Your task to perform on an android device: Go to internet settings Image 0: 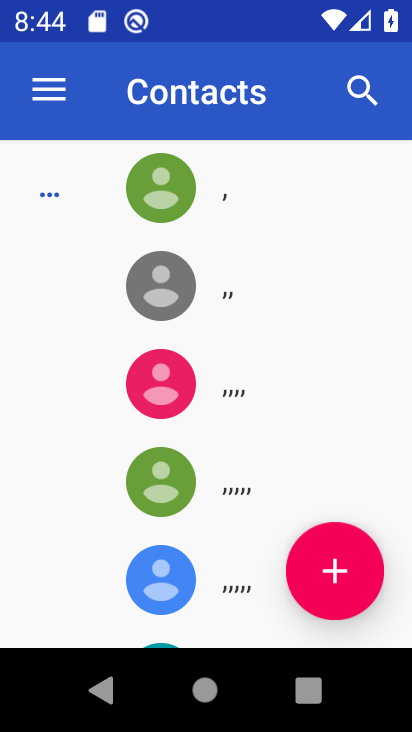
Step 0: press home button
Your task to perform on an android device: Go to internet settings Image 1: 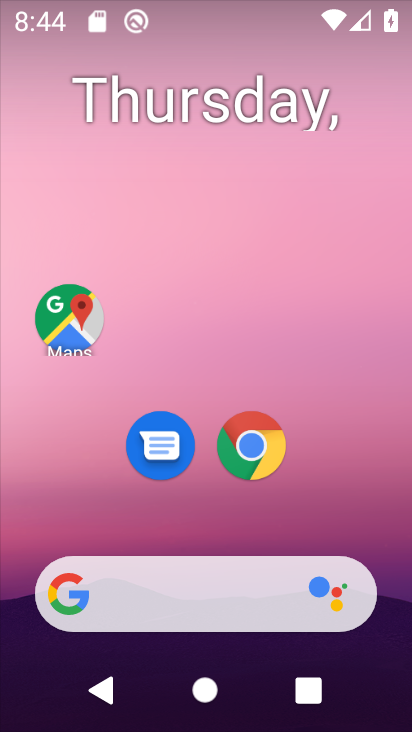
Step 1: drag from (322, 479) to (124, 70)
Your task to perform on an android device: Go to internet settings Image 2: 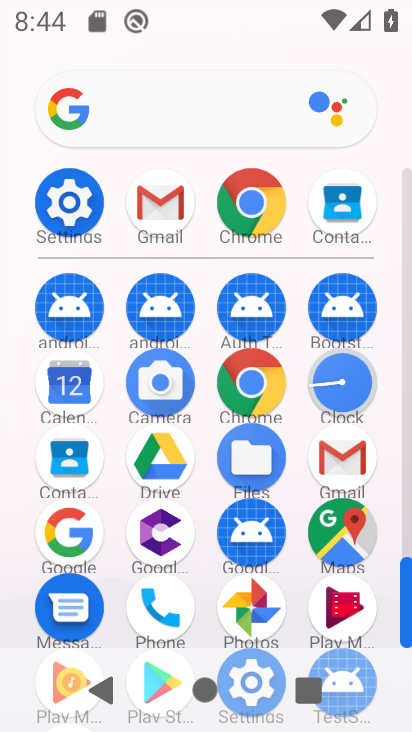
Step 2: click (60, 203)
Your task to perform on an android device: Go to internet settings Image 3: 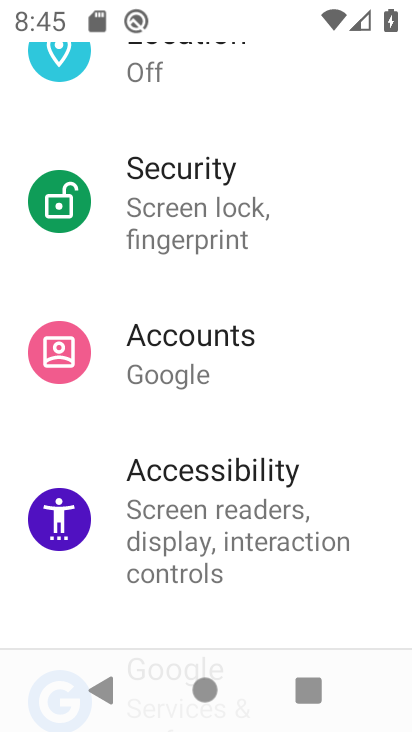
Step 3: drag from (286, 163) to (267, 556)
Your task to perform on an android device: Go to internet settings Image 4: 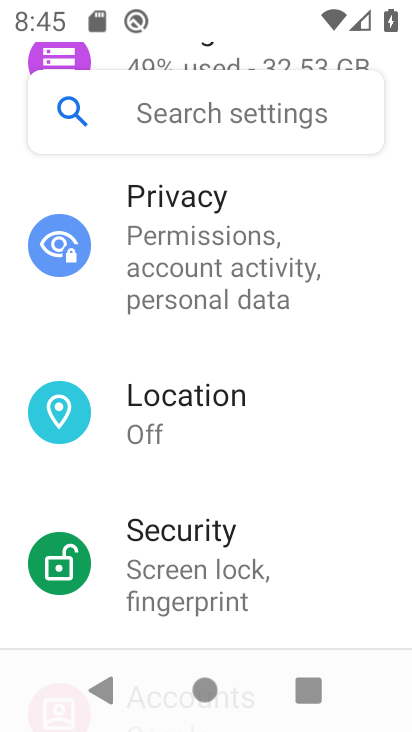
Step 4: drag from (302, 239) to (266, 597)
Your task to perform on an android device: Go to internet settings Image 5: 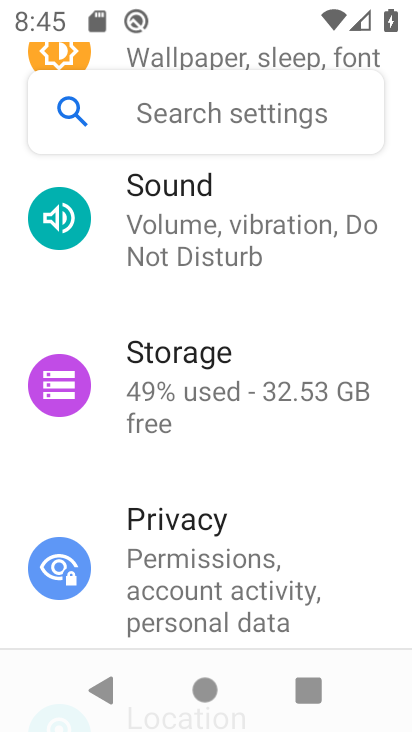
Step 5: drag from (287, 244) to (276, 601)
Your task to perform on an android device: Go to internet settings Image 6: 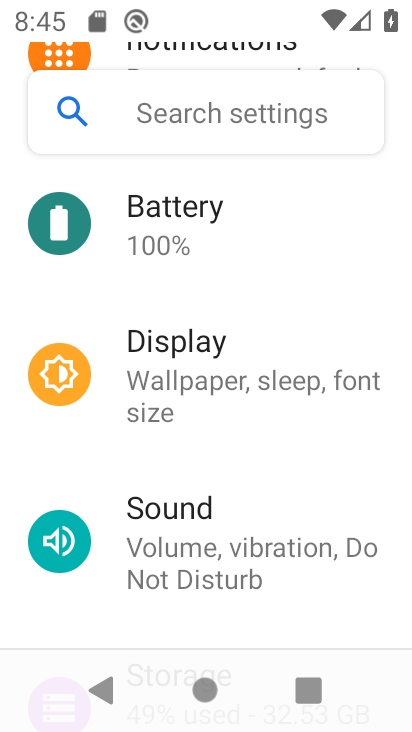
Step 6: drag from (280, 276) to (290, 553)
Your task to perform on an android device: Go to internet settings Image 7: 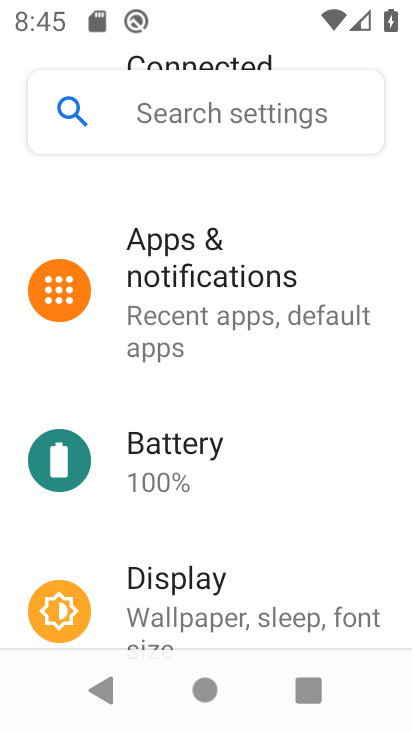
Step 7: drag from (322, 227) to (303, 547)
Your task to perform on an android device: Go to internet settings Image 8: 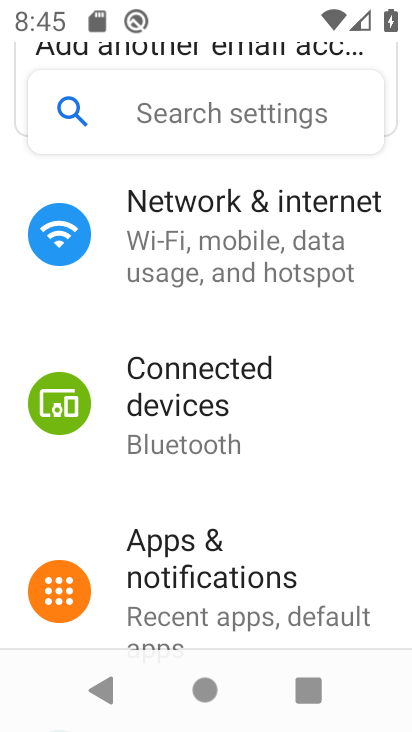
Step 8: click (265, 261)
Your task to perform on an android device: Go to internet settings Image 9: 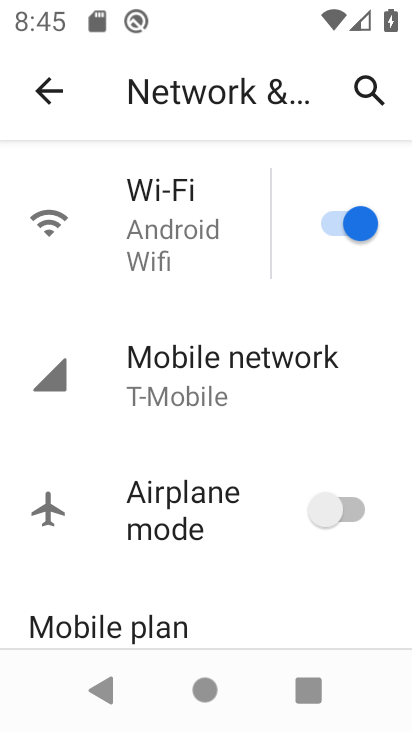
Step 9: task complete